Your task to perform on an android device: What's the weather going to be tomorrow? Image 0: 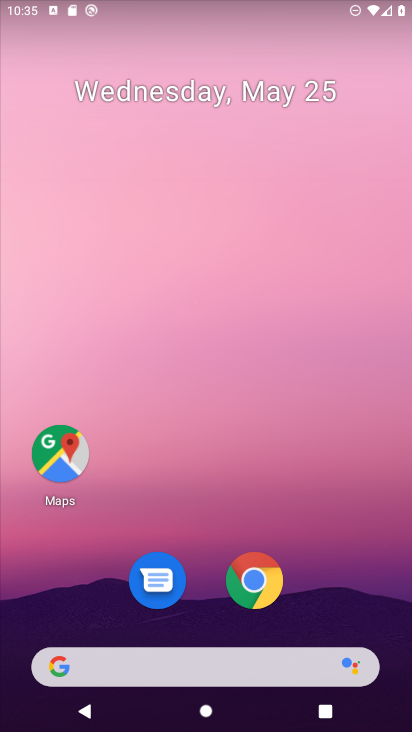
Step 0: press home button
Your task to perform on an android device: What's the weather going to be tomorrow? Image 1: 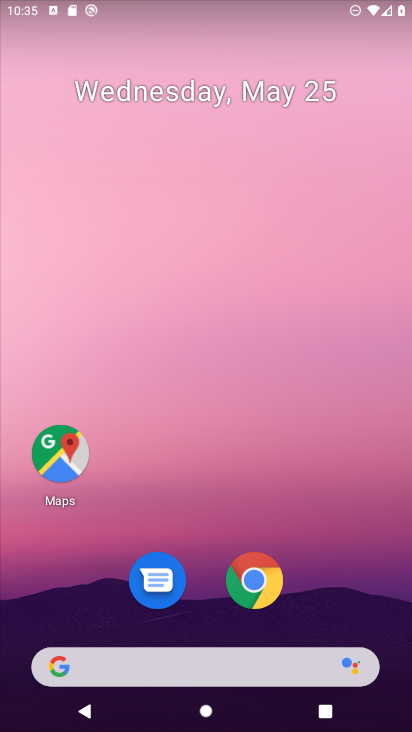
Step 1: click (260, 670)
Your task to perform on an android device: What's the weather going to be tomorrow? Image 2: 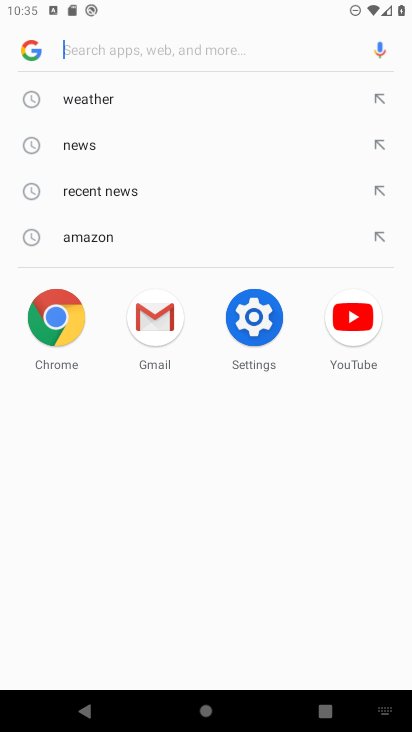
Step 2: click (99, 93)
Your task to perform on an android device: What's the weather going to be tomorrow? Image 3: 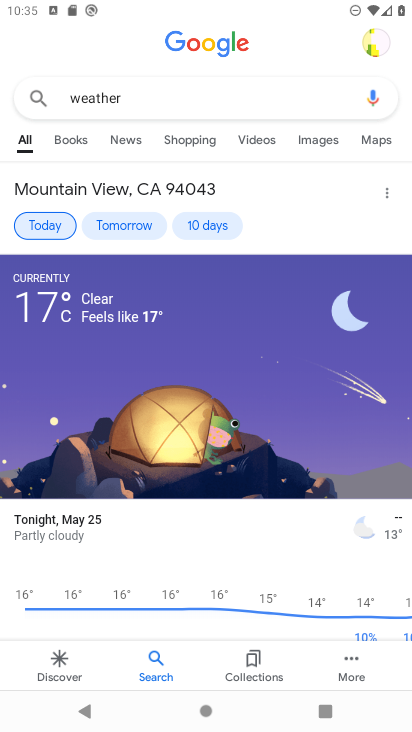
Step 3: click (124, 226)
Your task to perform on an android device: What's the weather going to be tomorrow? Image 4: 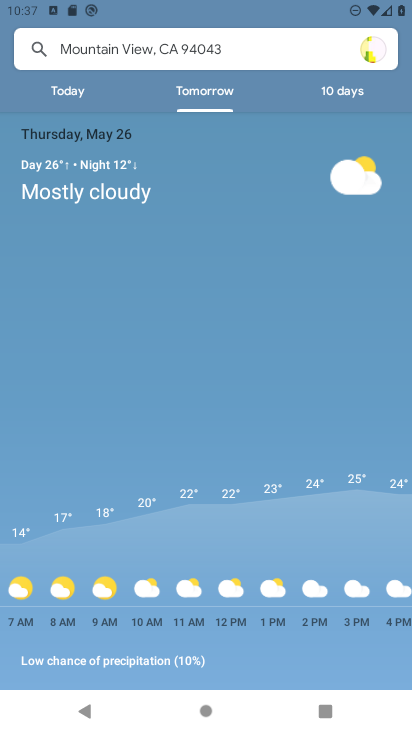
Step 4: task complete